Your task to perform on an android device: move a message to another label in the gmail app Image 0: 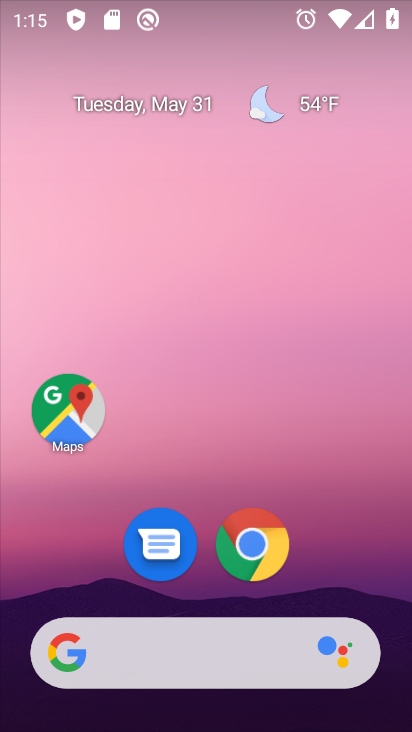
Step 0: drag from (313, 588) to (310, 23)
Your task to perform on an android device: move a message to another label in the gmail app Image 1: 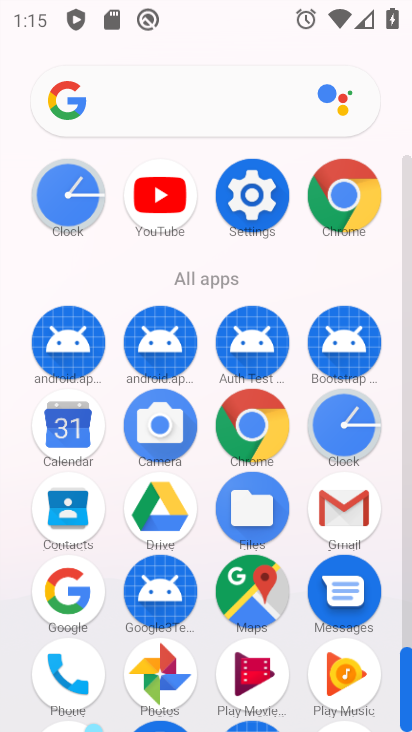
Step 1: click (343, 503)
Your task to perform on an android device: move a message to another label in the gmail app Image 2: 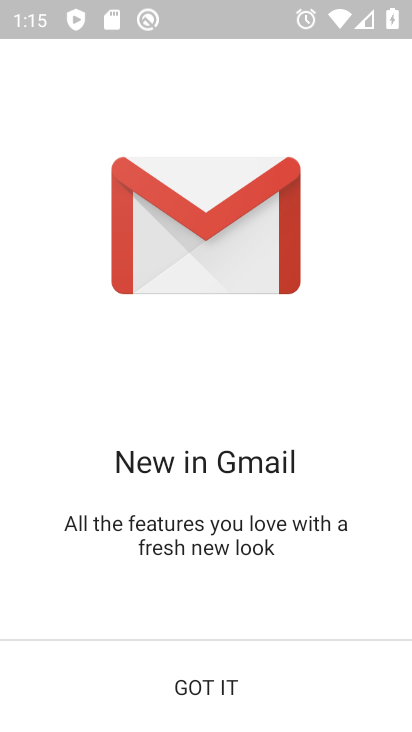
Step 2: click (231, 680)
Your task to perform on an android device: move a message to another label in the gmail app Image 3: 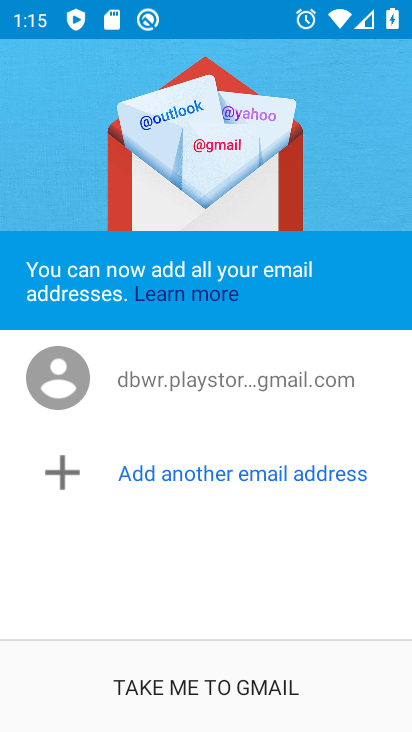
Step 3: click (166, 694)
Your task to perform on an android device: move a message to another label in the gmail app Image 4: 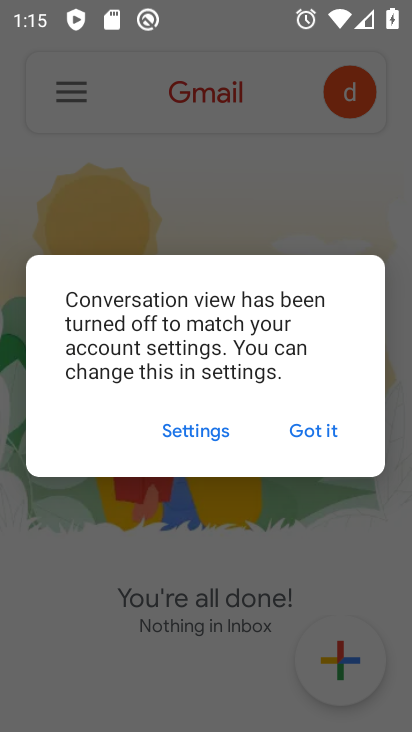
Step 4: click (311, 418)
Your task to perform on an android device: move a message to another label in the gmail app Image 5: 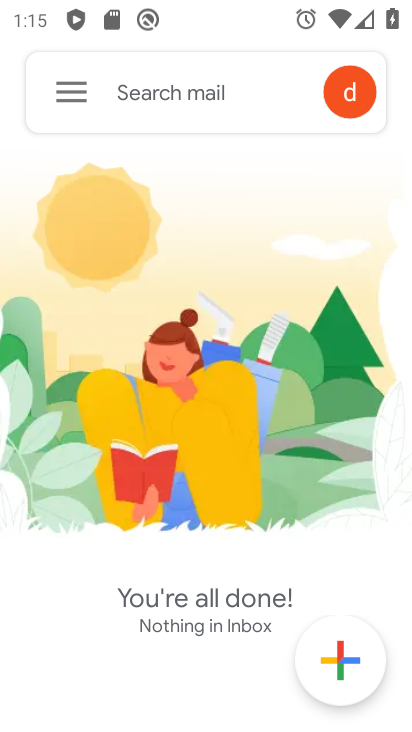
Step 5: click (65, 91)
Your task to perform on an android device: move a message to another label in the gmail app Image 6: 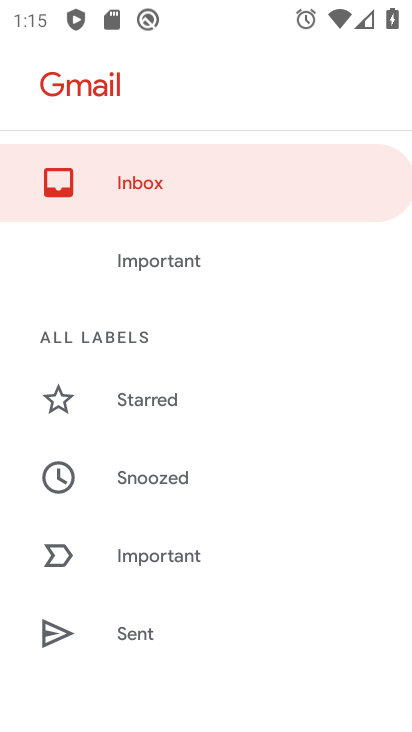
Step 6: drag from (189, 575) to (241, 164)
Your task to perform on an android device: move a message to another label in the gmail app Image 7: 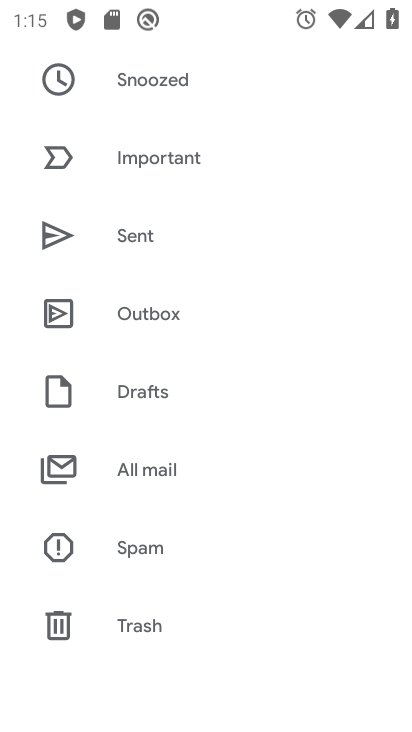
Step 7: click (171, 475)
Your task to perform on an android device: move a message to another label in the gmail app Image 8: 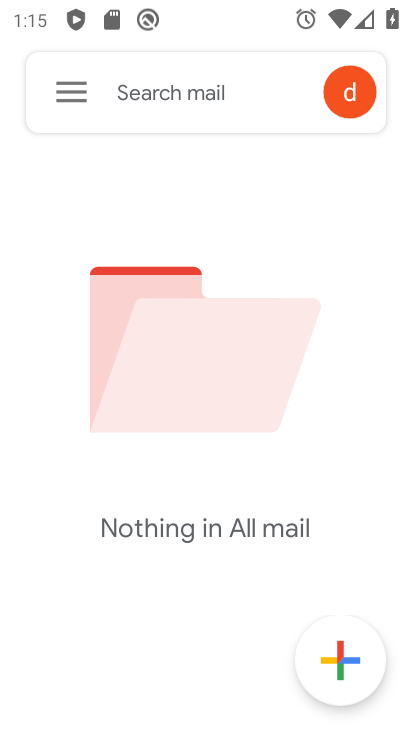
Step 8: task complete